Your task to perform on an android device: change the clock display to show seconds Image 0: 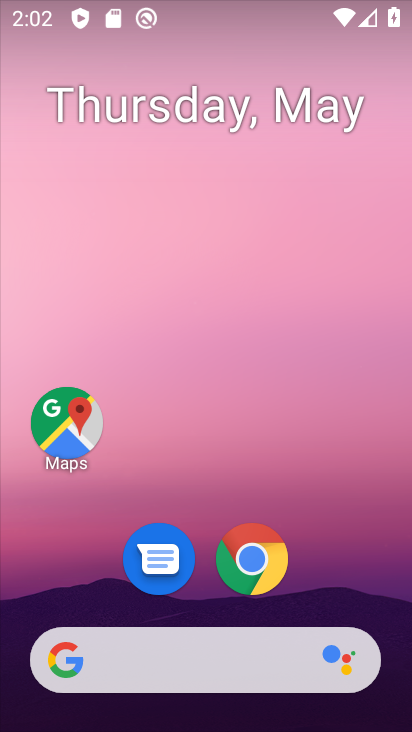
Step 0: drag from (216, 606) to (225, 251)
Your task to perform on an android device: change the clock display to show seconds Image 1: 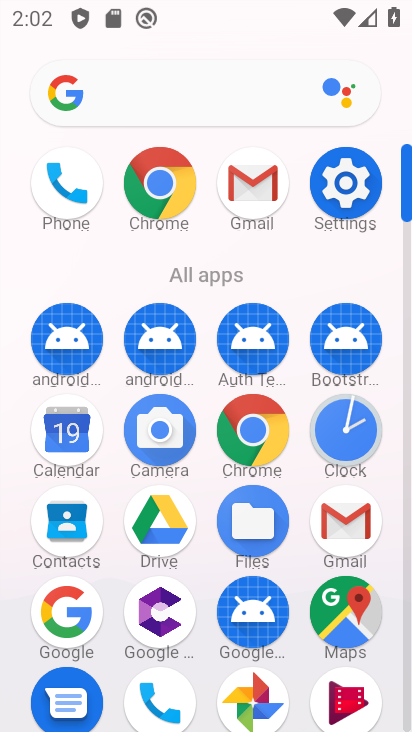
Step 1: click (346, 416)
Your task to perform on an android device: change the clock display to show seconds Image 2: 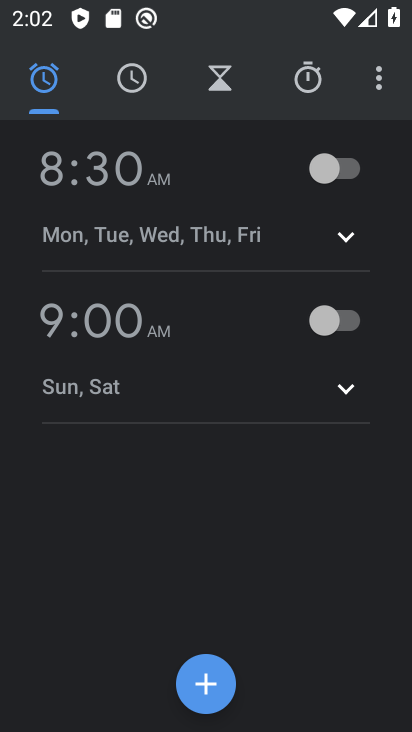
Step 2: click (368, 78)
Your task to perform on an android device: change the clock display to show seconds Image 3: 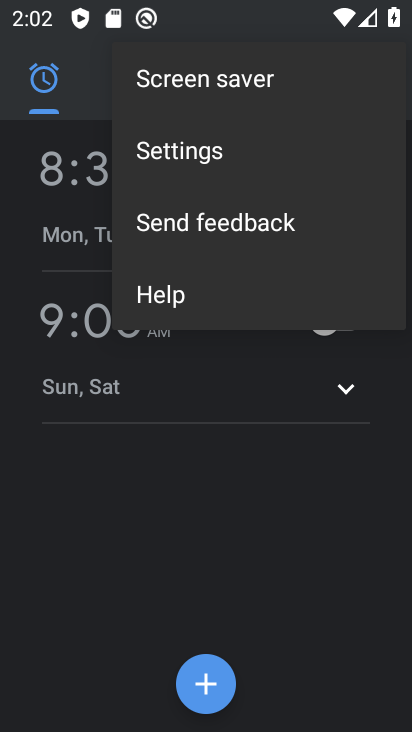
Step 3: click (302, 135)
Your task to perform on an android device: change the clock display to show seconds Image 4: 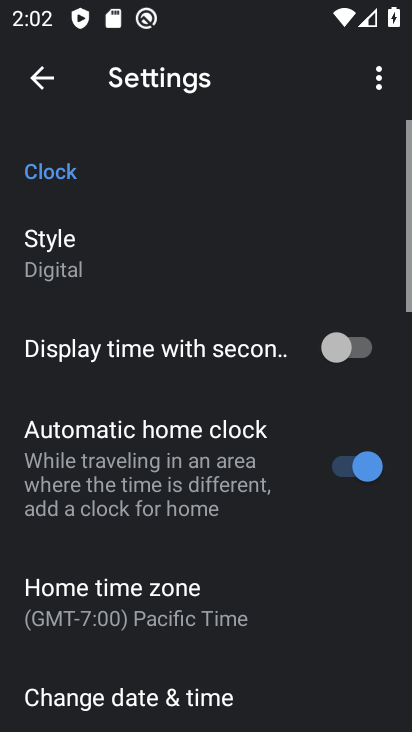
Step 4: click (354, 336)
Your task to perform on an android device: change the clock display to show seconds Image 5: 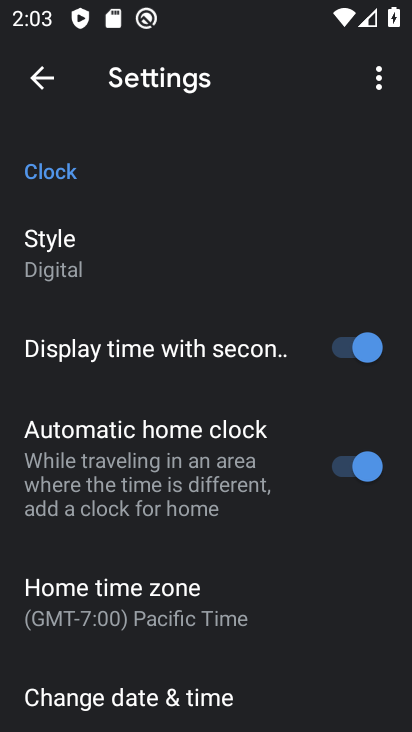
Step 5: task complete